Your task to perform on an android device: Do I have any events today? Image 0: 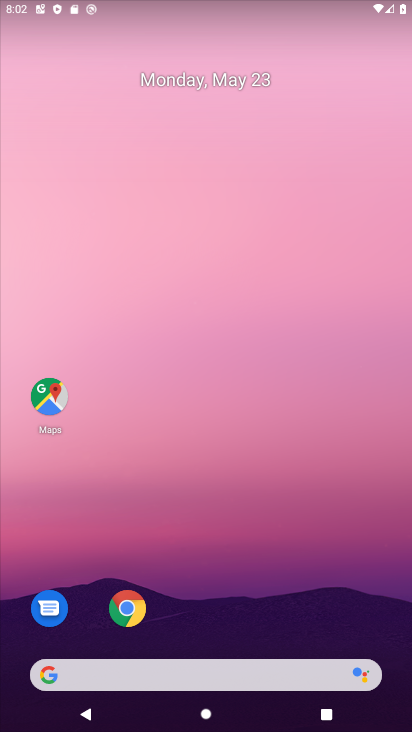
Step 0: drag from (176, 663) to (122, 161)
Your task to perform on an android device: Do I have any events today? Image 1: 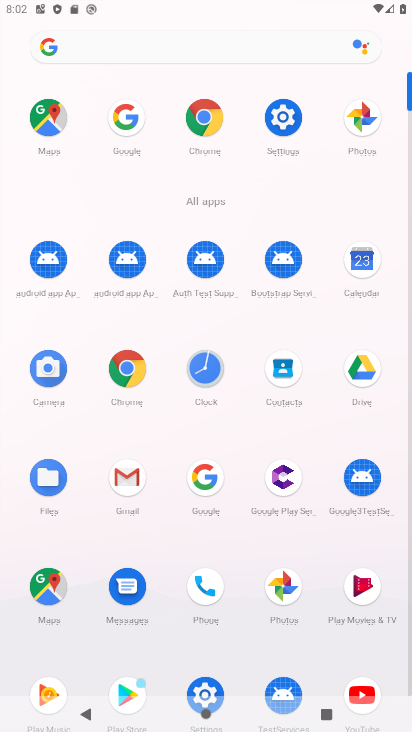
Step 1: click (371, 263)
Your task to perform on an android device: Do I have any events today? Image 2: 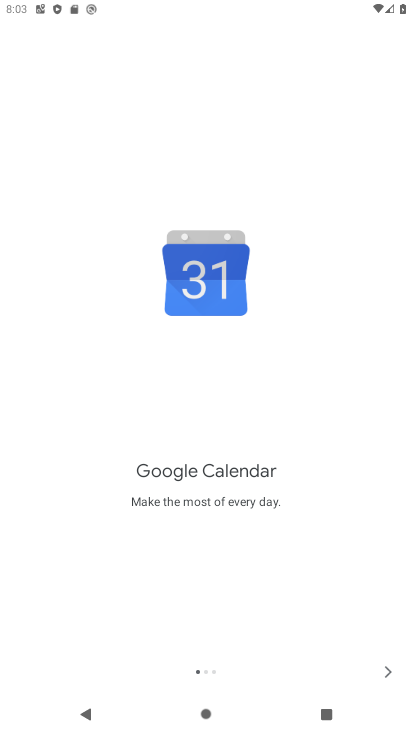
Step 2: click (380, 668)
Your task to perform on an android device: Do I have any events today? Image 3: 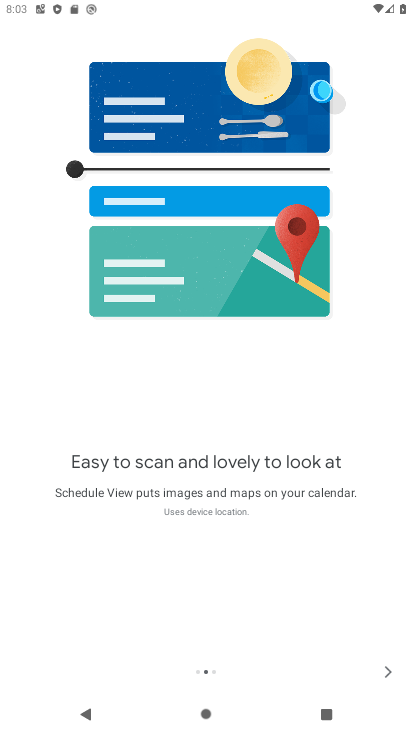
Step 3: click (380, 668)
Your task to perform on an android device: Do I have any events today? Image 4: 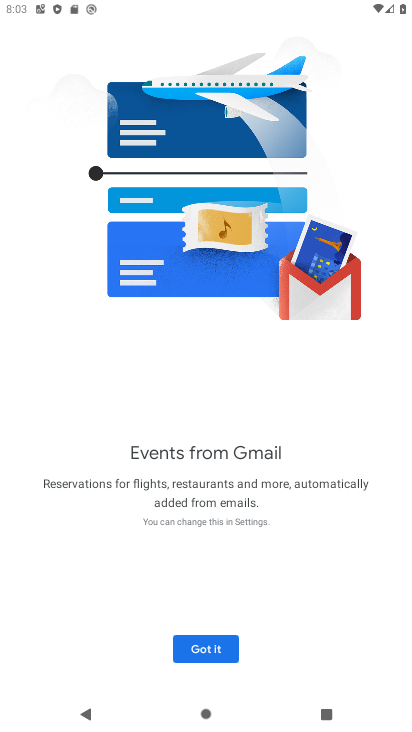
Step 4: click (202, 645)
Your task to perform on an android device: Do I have any events today? Image 5: 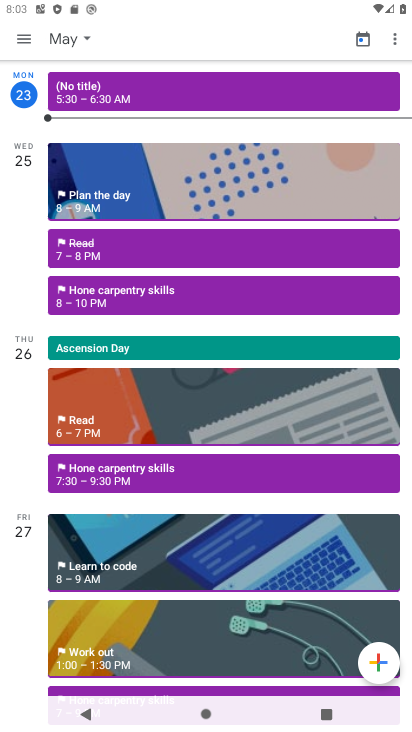
Step 5: task complete